Your task to perform on an android device: Open Chrome and go to settings Image 0: 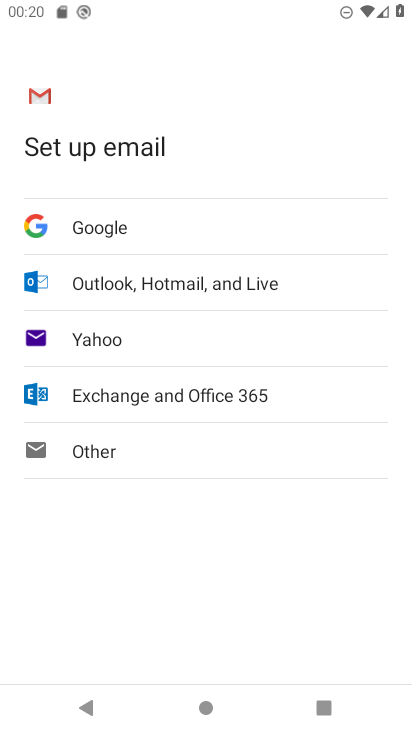
Step 0: press home button
Your task to perform on an android device: Open Chrome and go to settings Image 1: 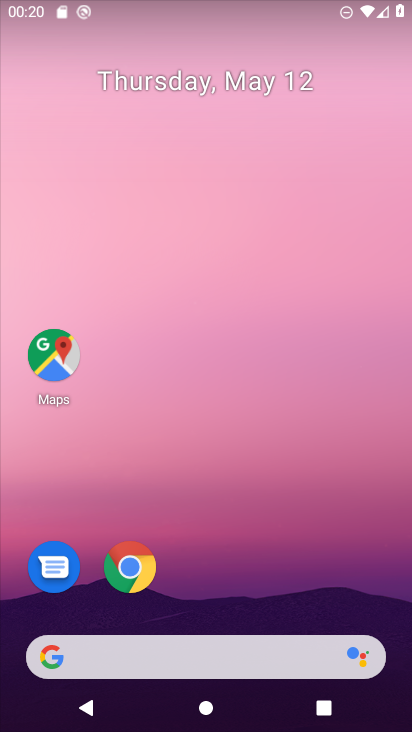
Step 1: drag from (254, 706) to (281, 21)
Your task to perform on an android device: Open Chrome and go to settings Image 2: 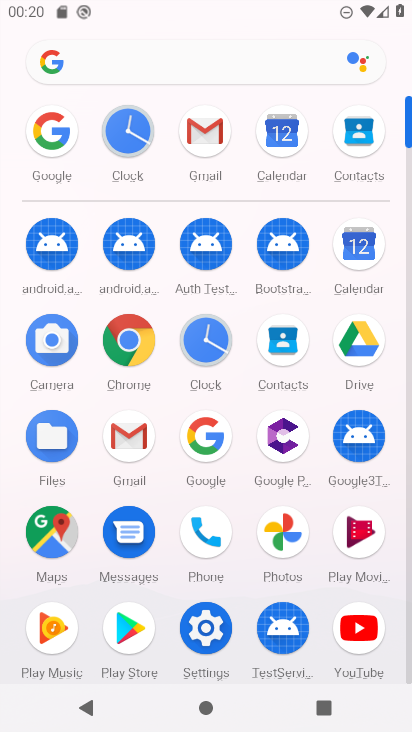
Step 2: click (135, 340)
Your task to perform on an android device: Open Chrome and go to settings Image 3: 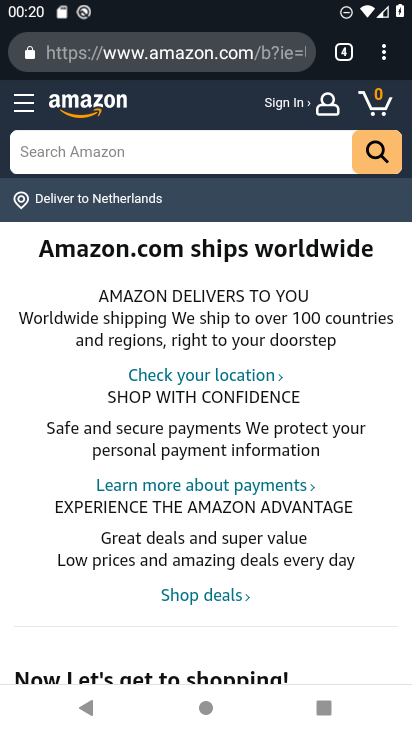
Step 3: click (386, 53)
Your task to perform on an android device: Open Chrome and go to settings Image 4: 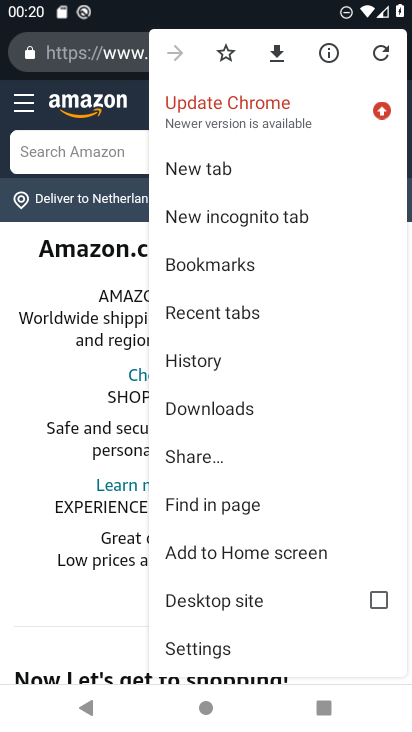
Step 4: click (244, 661)
Your task to perform on an android device: Open Chrome and go to settings Image 5: 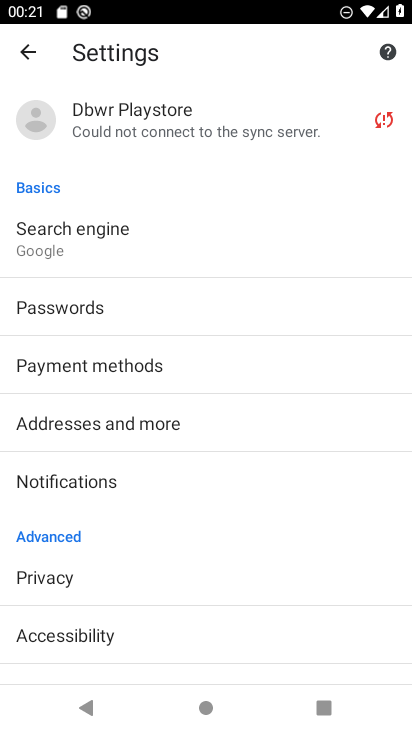
Step 5: task complete